Your task to perform on an android device: Open Google Maps and go to "Timeline" Image 0: 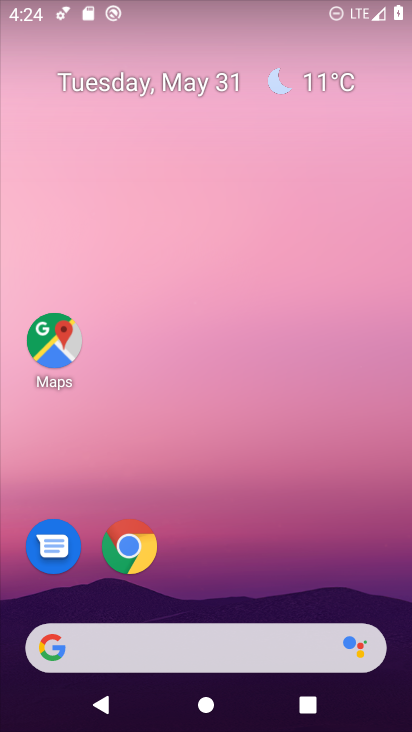
Step 0: drag from (230, 553) to (102, 709)
Your task to perform on an android device: Open Google Maps and go to "Timeline" Image 1: 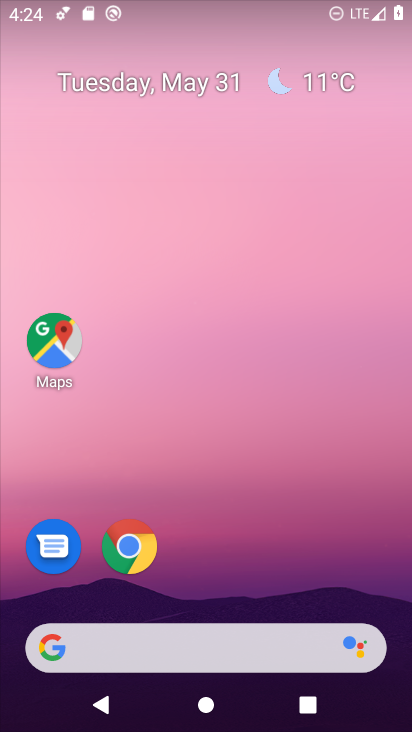
Step 1: click (41, 345)
Your task to perform on an android device: Open Google Maps and go to "Timeline" Image 2: 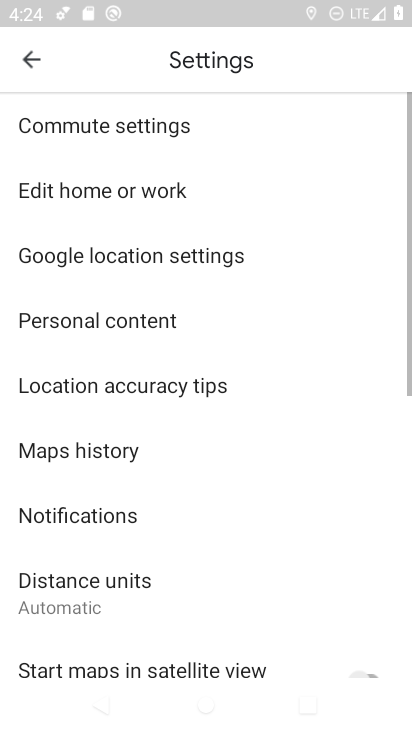
Step 2: click (26, 57)
Your task to perform on an android device: Open Google Maps and go to "Timeline" Image 3: 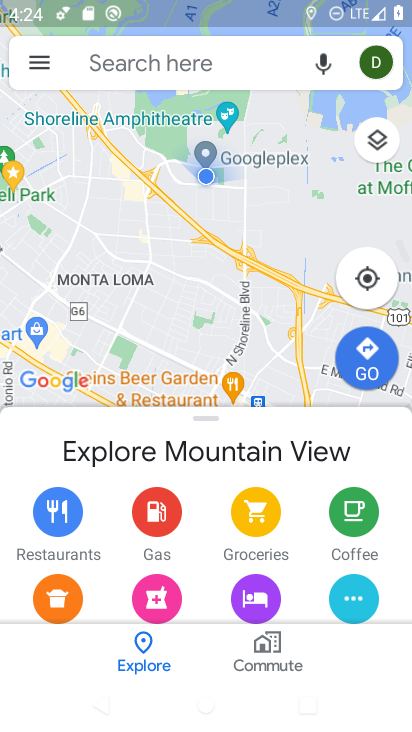
Step 3: click (44, 68)
Your task to perform on an android device: Open Google Maps and go to "Timeline" Image 4: 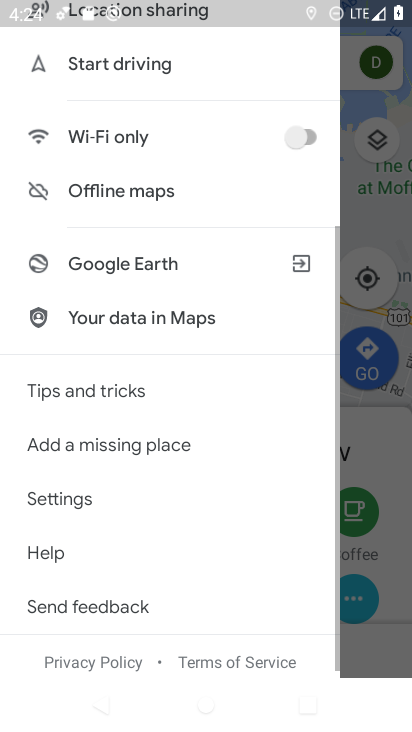
Step 4: drag from (117, 102) to (161, 616)
Your task to perform on an android device: Open Google Maps and go to "Timeline" Image 5: 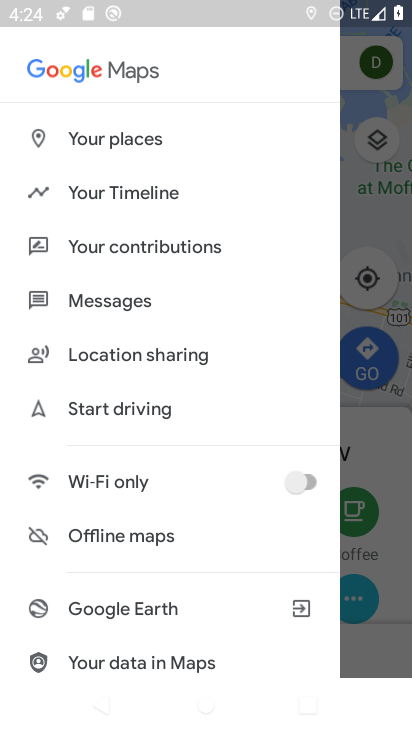
Step 5: click (117, 176)
Your task to perform on an android device: Open Google Maps and go to "Timeline" Image 6: 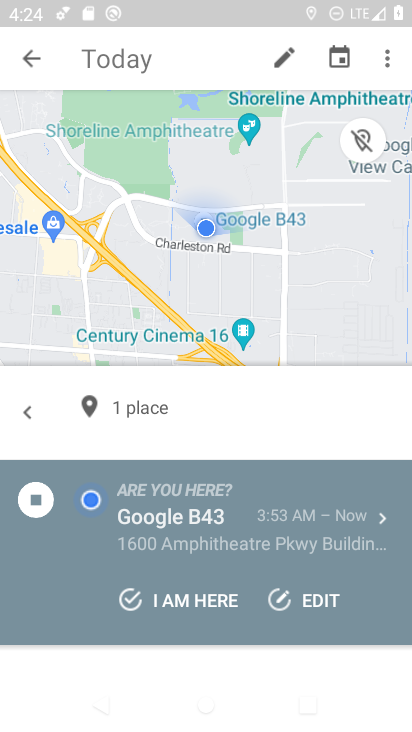
Step 6: task complete